Your task to perform on an android device: Go to settings Image 0: 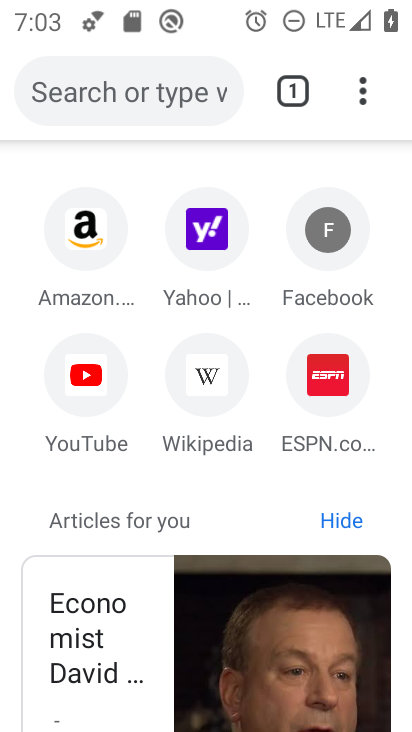
Step 0: press home button
Your task to perform on an android device: Go to settings Image 1: 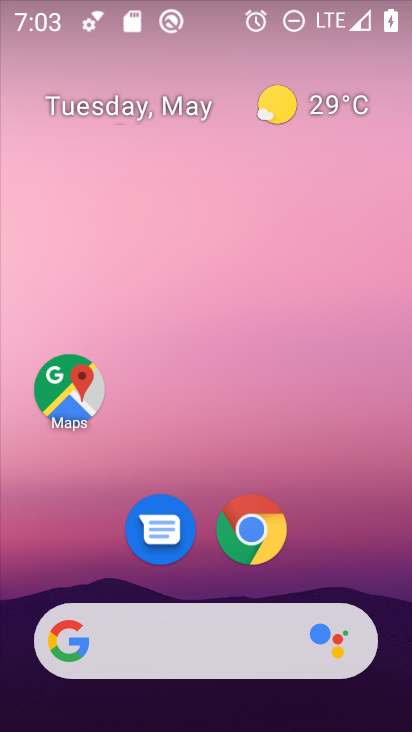
Step 1: drag from (347, 577) to (291, 36)
Your task to perform on an android device: Go to settings Image 2: 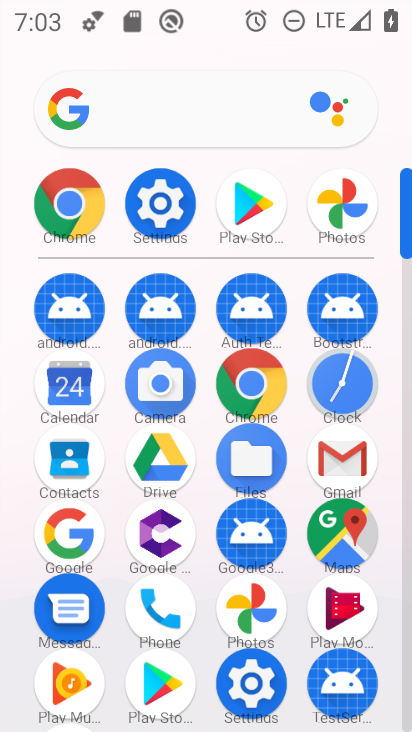
Step 2: click (170, 206)
Your task to perform on an android device: Go to settings Image 3: 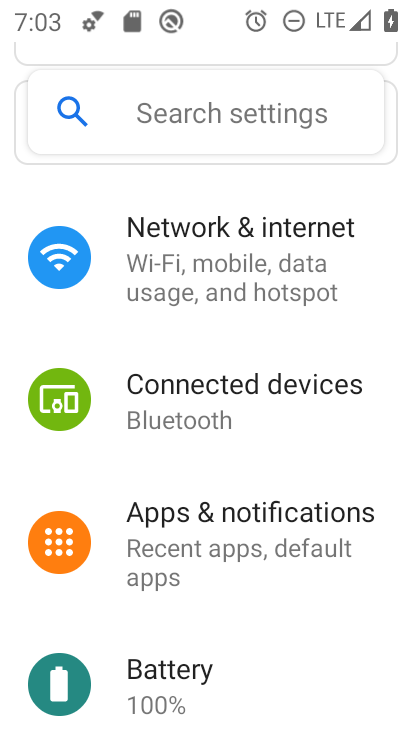
Step 3: task complete